Your task to perform on an android device: turn off notifications in google photos Image 0: 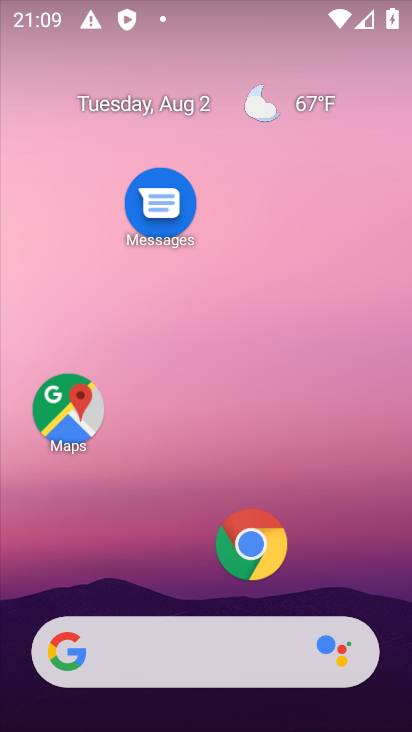
Step 0: drag from (175, 584) to (216, 140)
Your task to perform on an android device: turn off notifications in google photos Image 1: 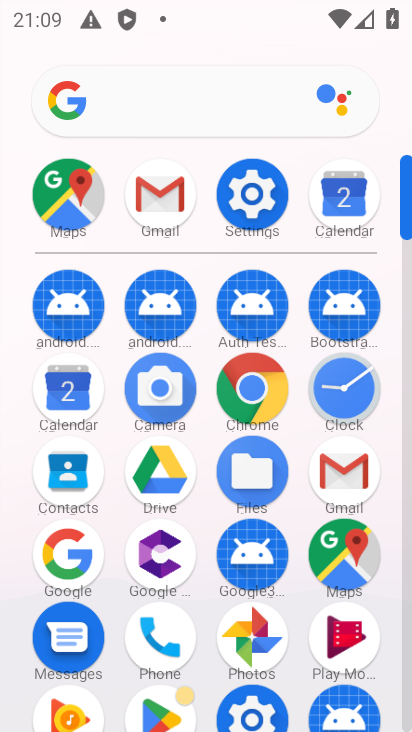
Step 1: click (249, 645)
Your task to perform on an android device: turn off notifications in google photos Image 2: 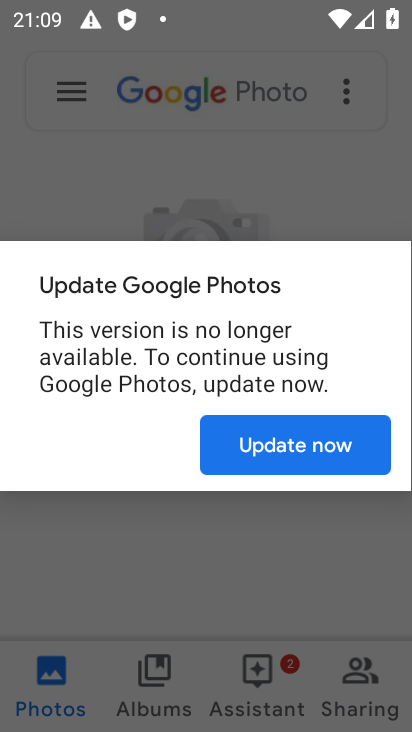
Step 2: click (268, 453)
Your task to perform on an android device: turn off notifications in google photos Image 3: 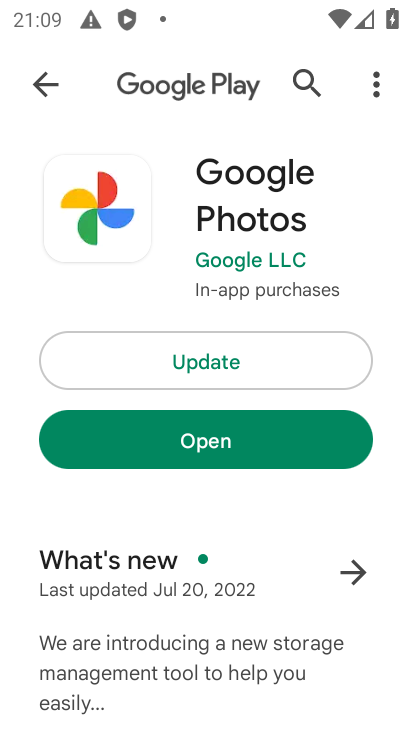
Step 3: click (247, 446)
Your task to perform on an android device: turn off notifications in google photos Image 4: 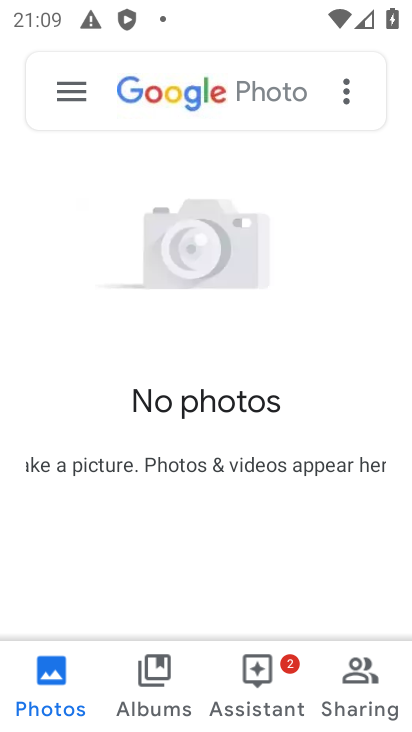
Step 4: click (68, 104)
Your task to perform on an android device: turn off notifications in google photos Image 5: 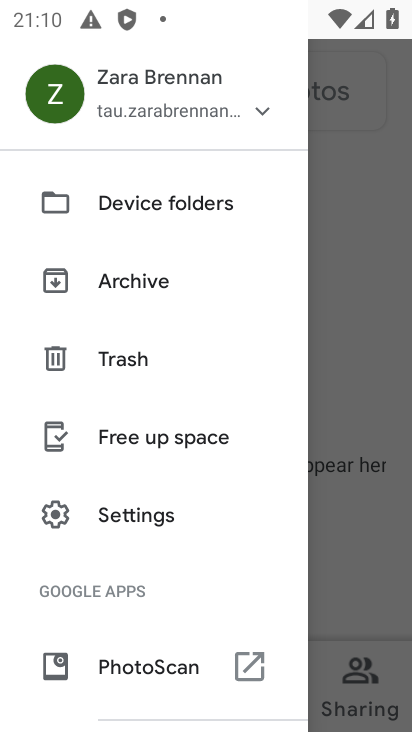
Step 5: click (132, 521)
Your task to perform on an android device: turn off notifications in google photos Image 6: 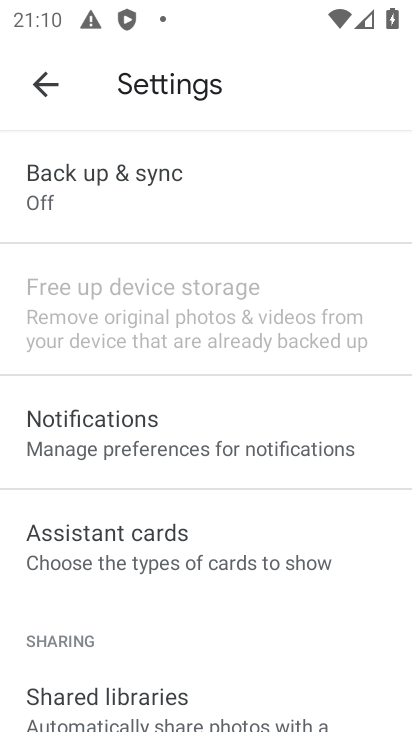
Step 6: click (128, 432)
Your task to perform on an android device: turn off notifications in google photos Image 7: 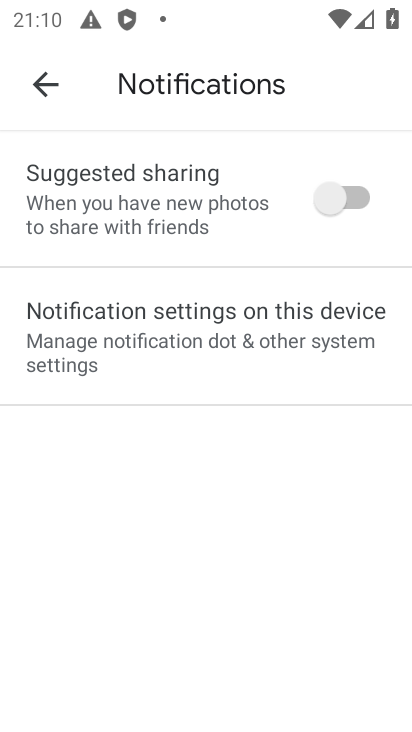
Step 7: click (130, 364)
Your task to perform on an android device: turn off notifications in google photos Image 8: 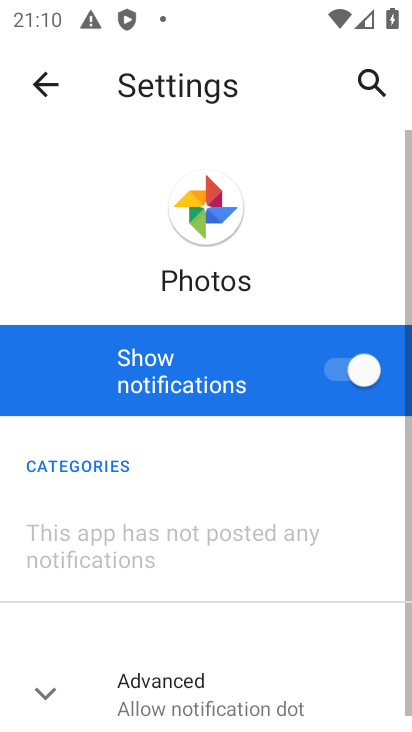
Step 8: click (330, 370)
Your task to perform on an android device: turn off notifications in google photos Image 9: 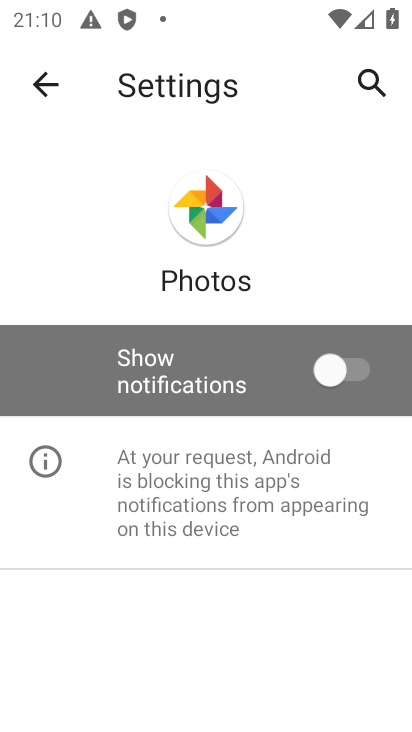
Step 9: task complete